Your task to perform on an android device: Go to Reddit.com Image 0: 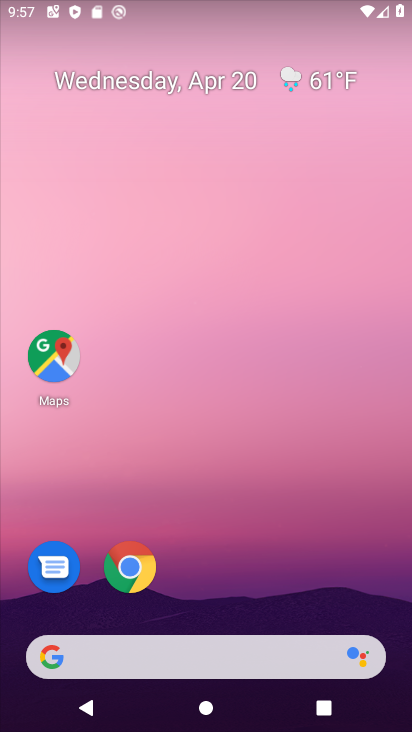
Step 0: click (245, 652)
Your task to perform on an android device: Go to Reddit.com Image 1: 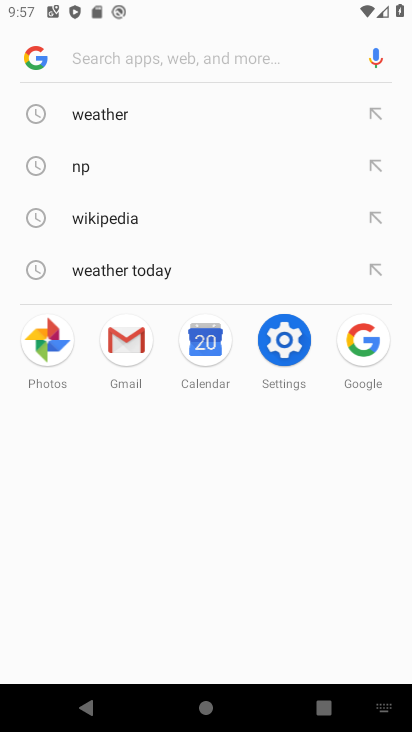
Step 1: type "Reddit.com"
Your task to perform on an android device: Go to Reddit.com Image 2: 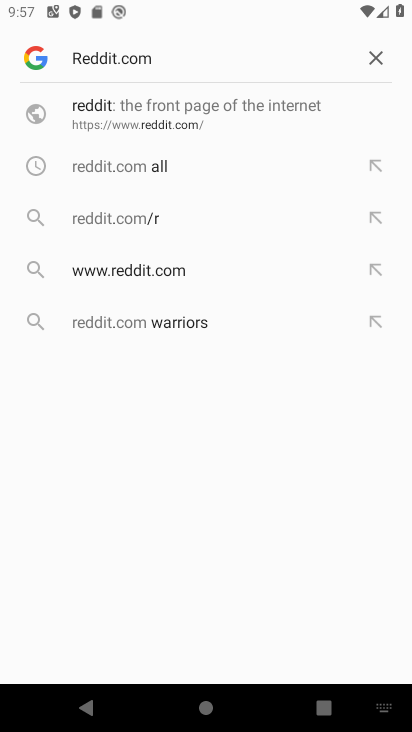
Step 2: click (181, 121)
Your task to perform on an android device: Go to Reddit.com Image 3: 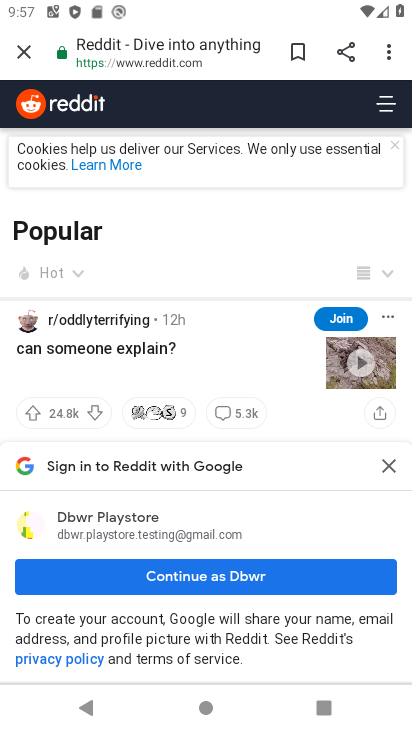
Step 3: task complete